Your task to perform on an android device: Open display settings Image 0: 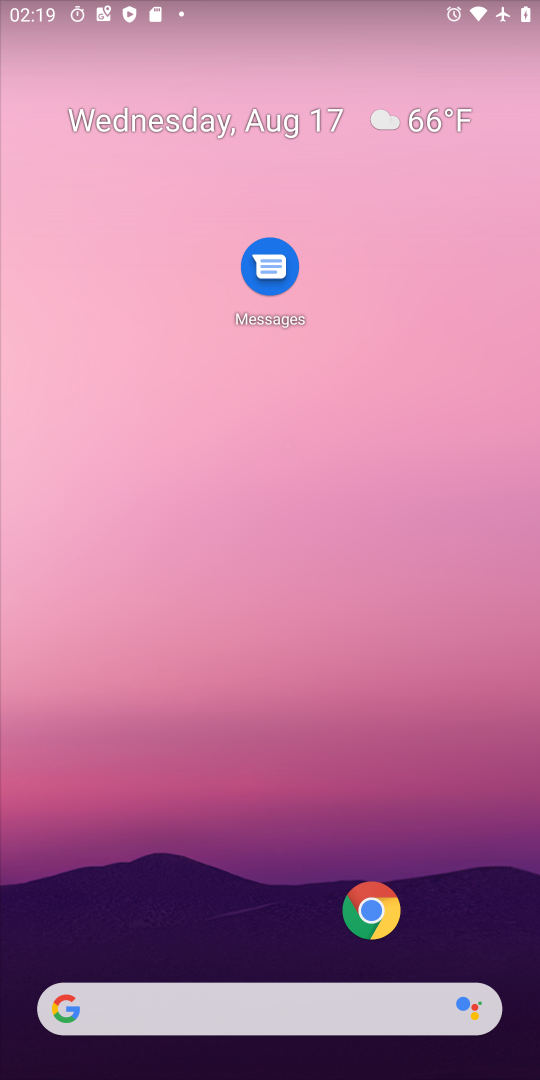
Step 0: press home button
Your task to perform on an android device: Open display settings Image 1: 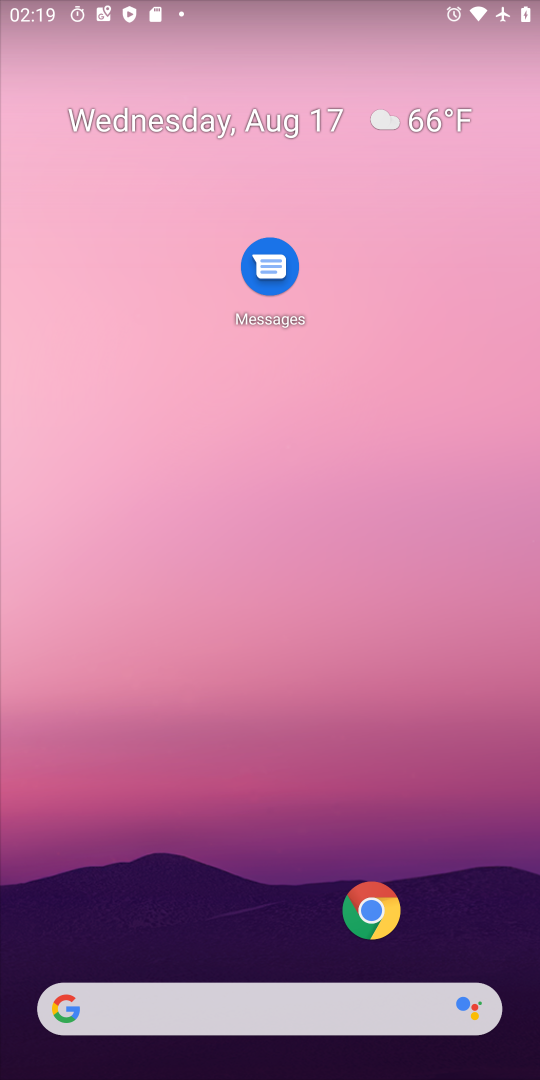
Step 1: drag from (231, 700) to (279, 84)
Your task to perform on an android device: Open display settings Image 2: 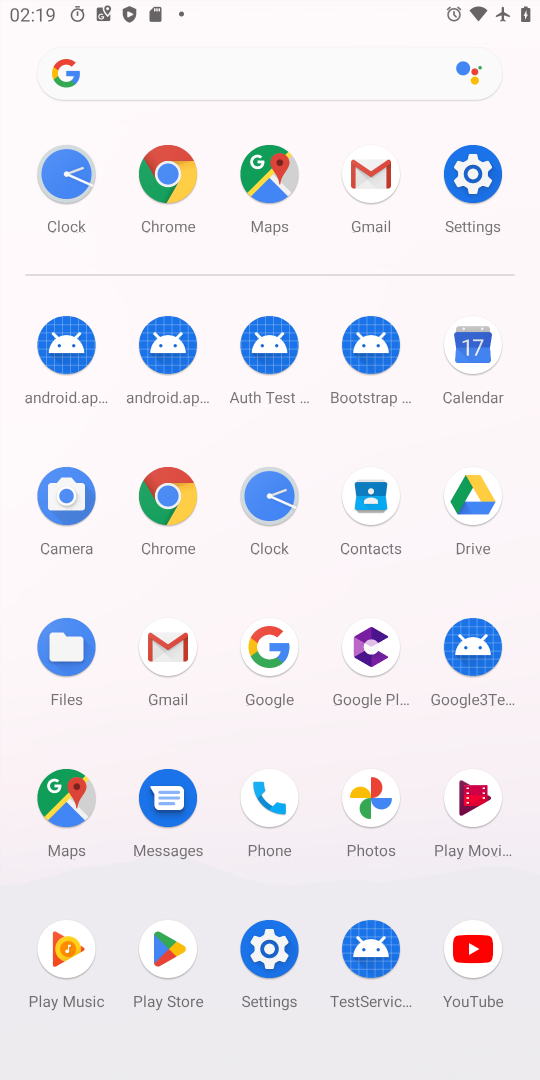
Step 2: click (269, 952)
Your task to perform on an android device: Open display settings Image 3: 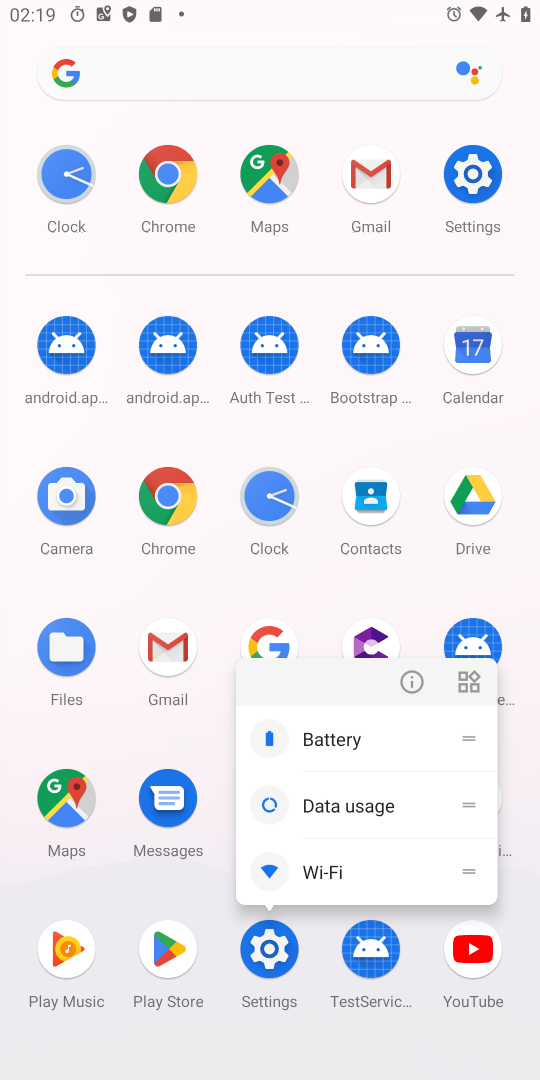
Step 3: click (270, 941)
Your task to perform on an android device: Open display settings Image 4: 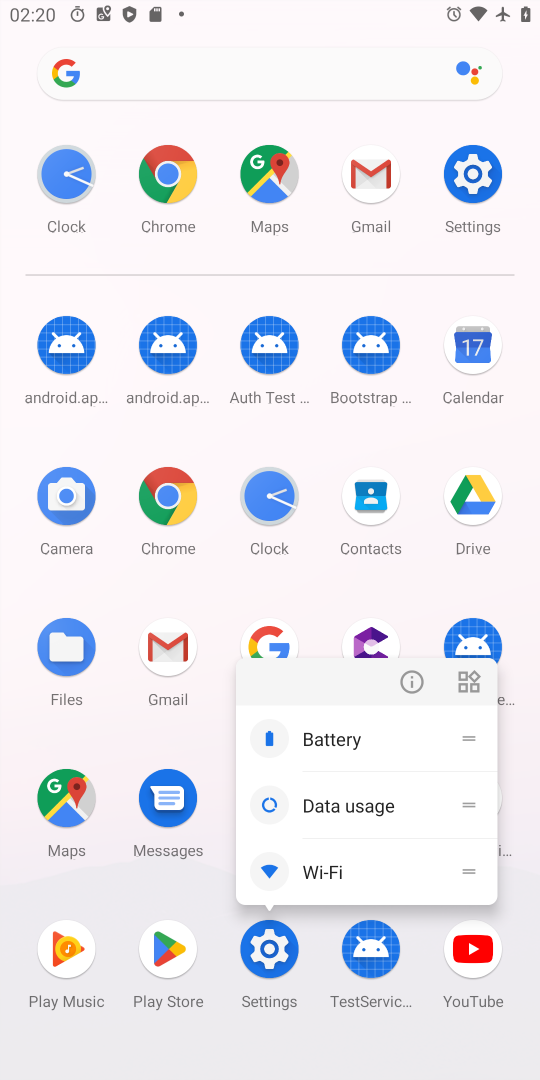
Step 4: click (270, 941)
Your task to perform on an android device: Open display settings Image 5: 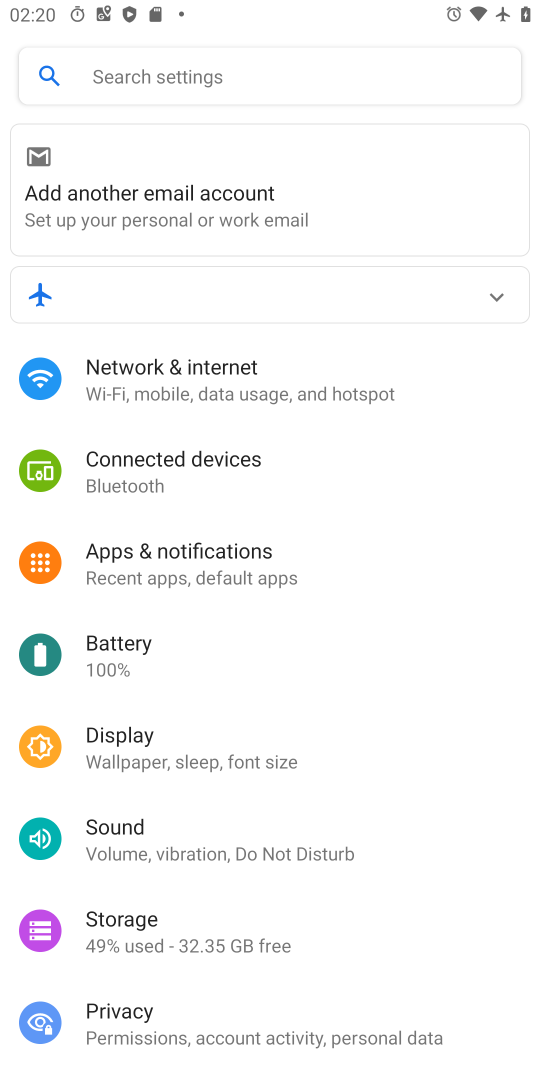
Step 5: click (153, 746)
Your task to perform on an android device: Open display settings Image 6: 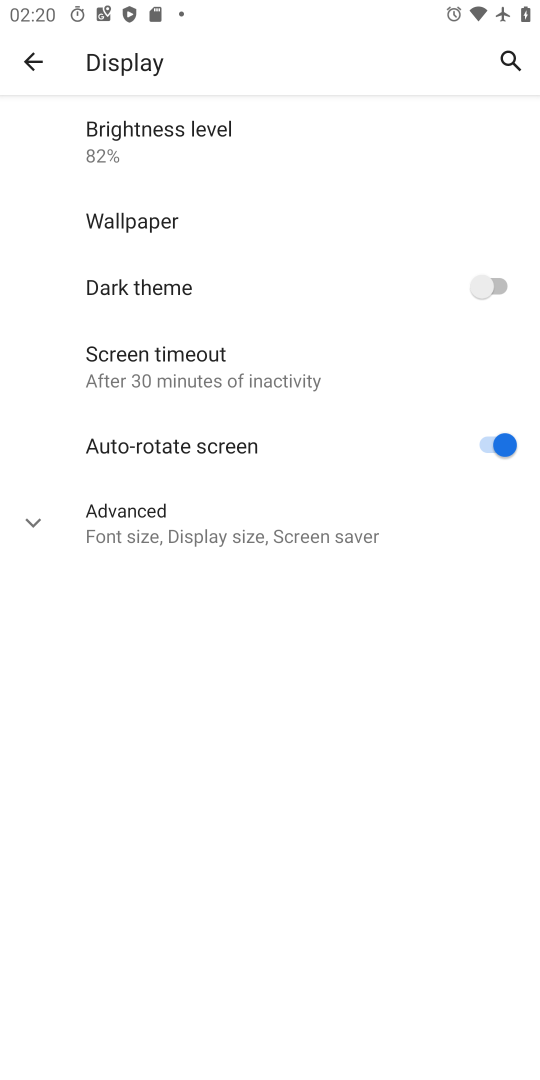
Step 6: task complete